Your task to perform on an android device: change alarm snooze length Image 0: 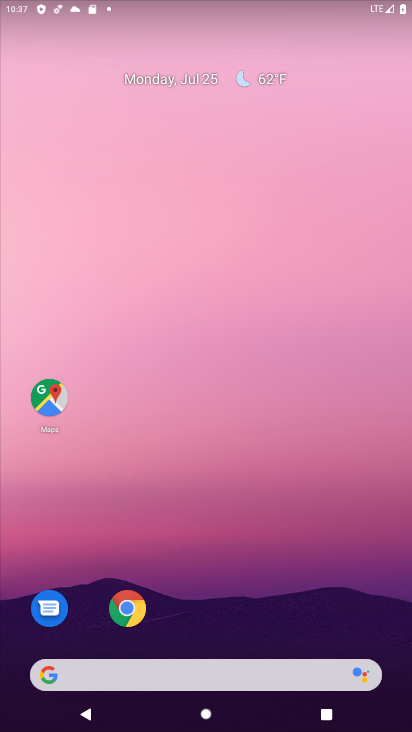
Step 0: drag from (215, 655) to (366, 351)
Your task to perform on an android device: change alarm snooze length Image 1: 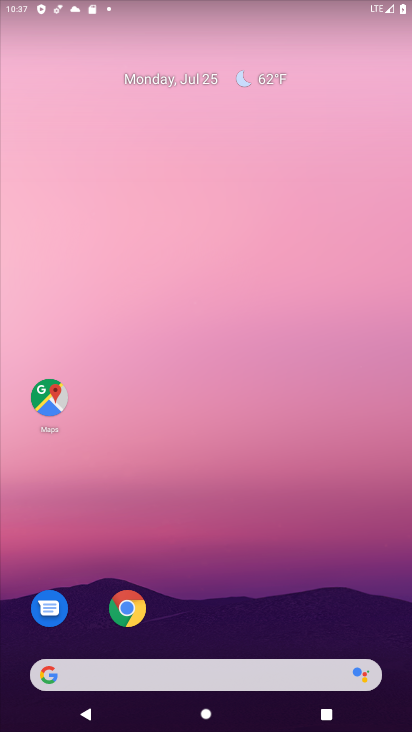
Step 1: drag from (249, 649) to (327, 226)
Your task to perform on an android device: change alarm snooze length Image 2: 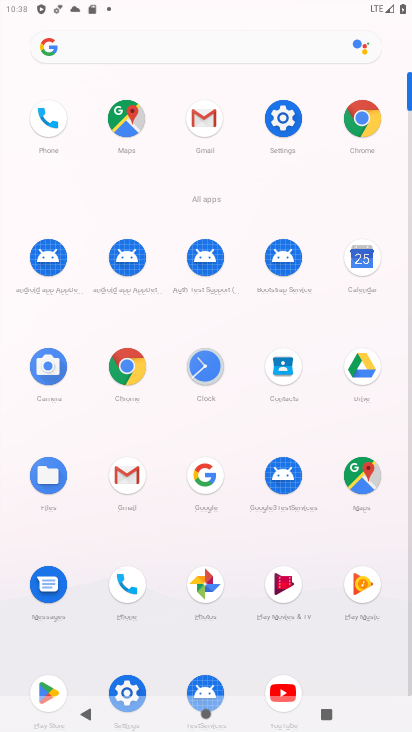
Step 2: click (211, 387)
Your task to perform on an android device: change alarm snooze length Image 3: 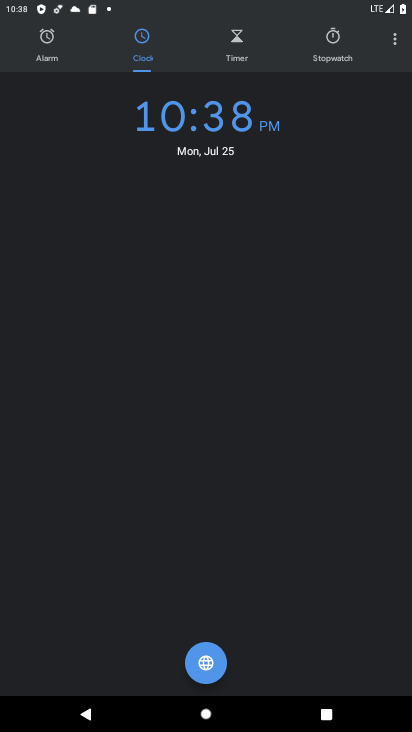
Step 3: click (391, 43)
Your task to perform on an android device: change alarm snooze length Image 4: 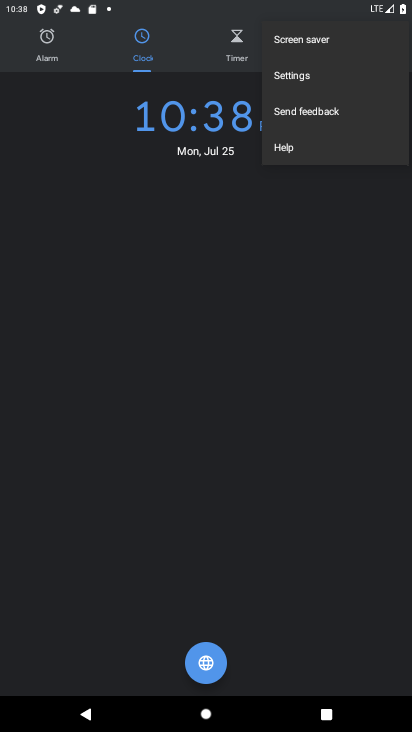
Step 4: click (301, 78)
Your task to perform on an android device: change alarm snooze length Image 5: 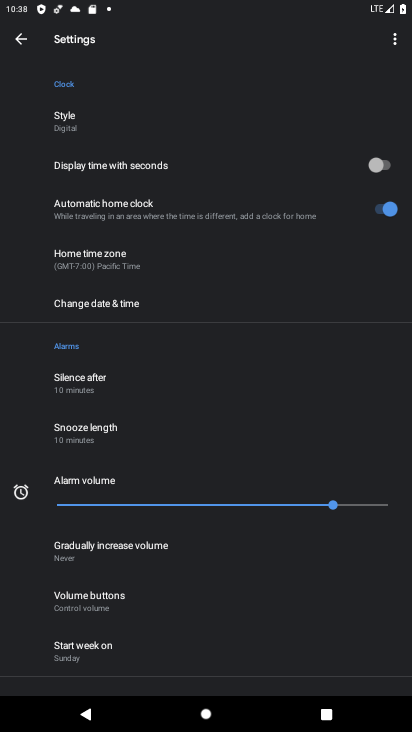
Step 5: click (110, 429)
Your task to perform on an android device: change alarm snooze length Image 6: 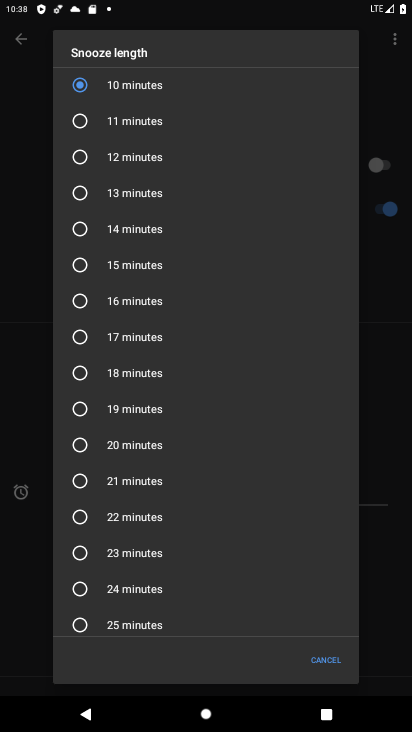
Step 6: click (109, 228)
Your task to perform on an android device: change alarm snooze length Image 7: 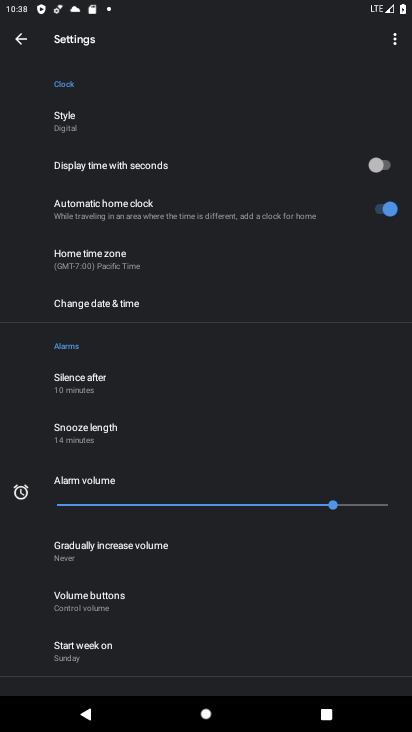
Step 7: task complete